Your task to perform on an android device: open app "Contacts" Image 0: 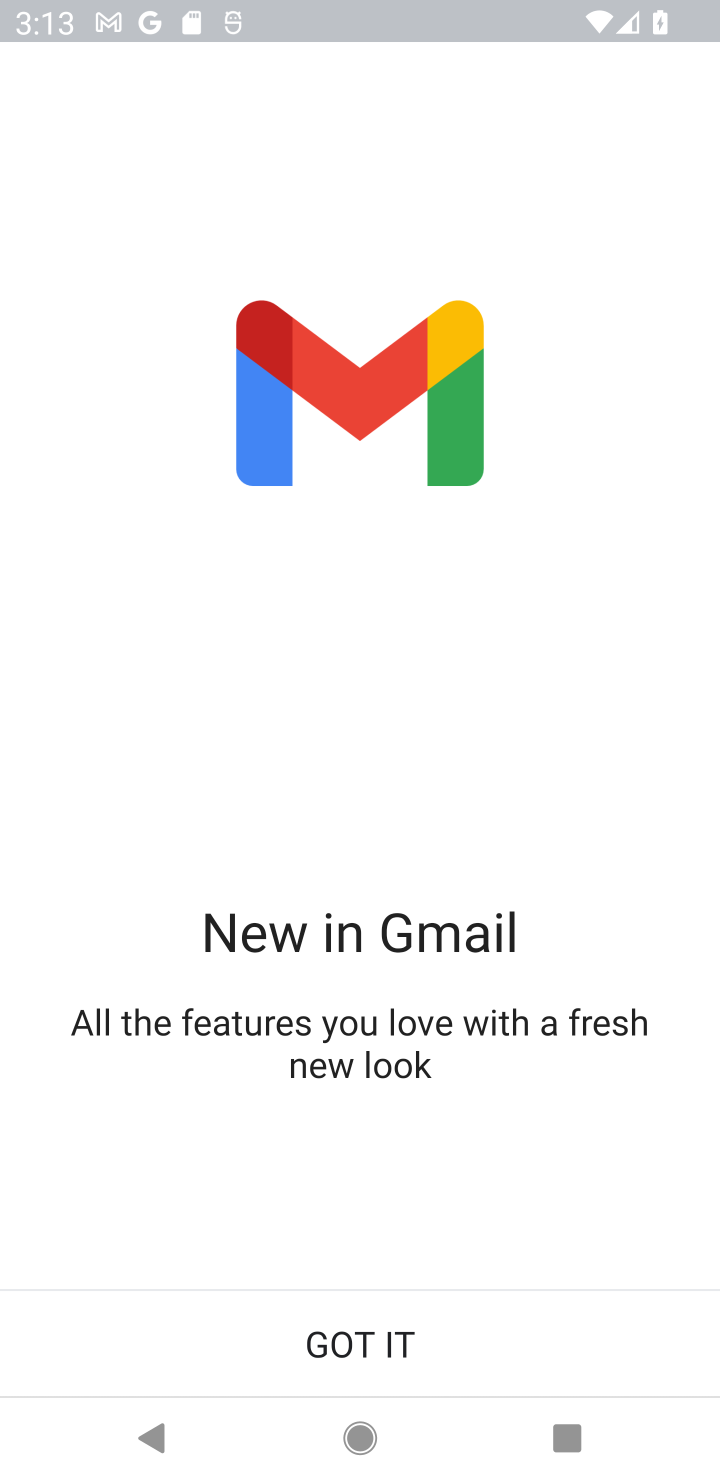
Step 0: press home button
Your task to perform on an android device: open app "Contacts" Image 1: 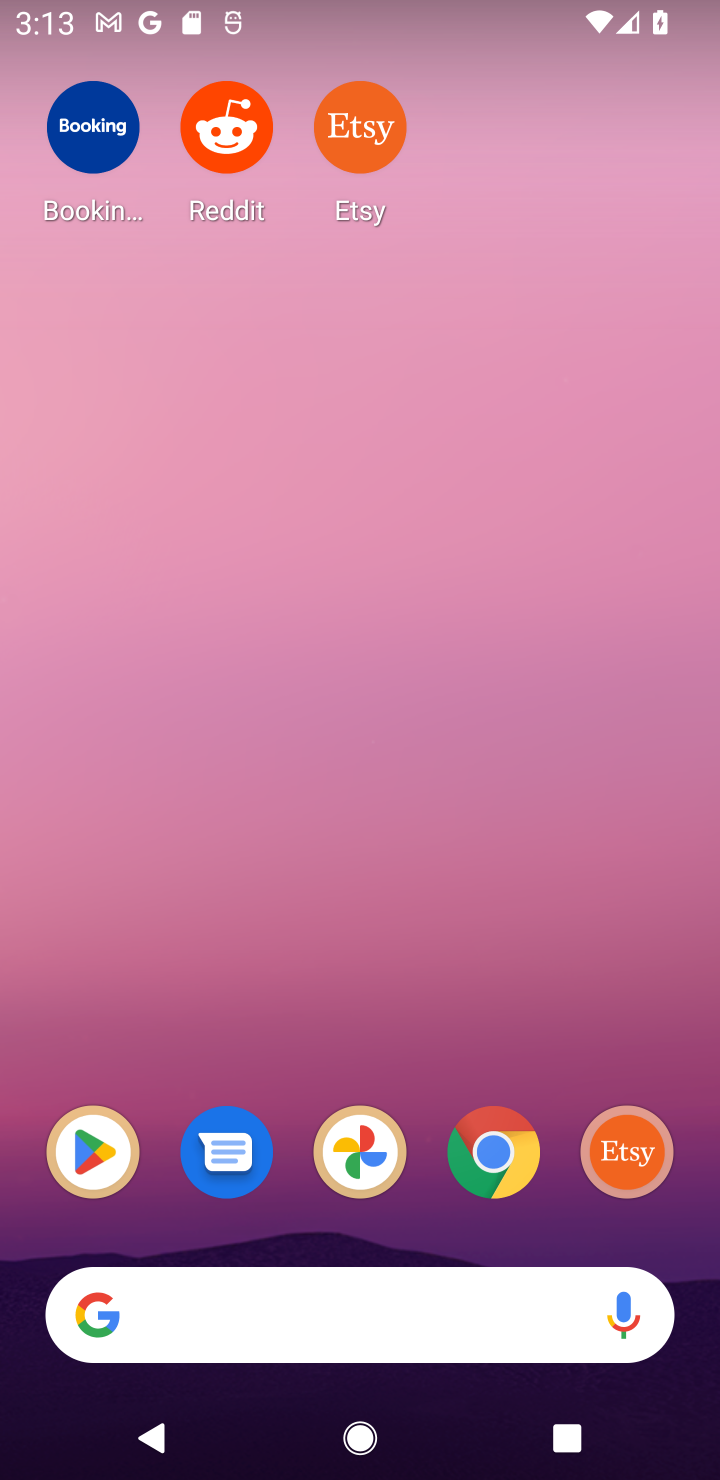
Step 1: drag from (362, 1256) to (261, 109)
Your task to perform on an android device: open app "Contacts" Image 2: 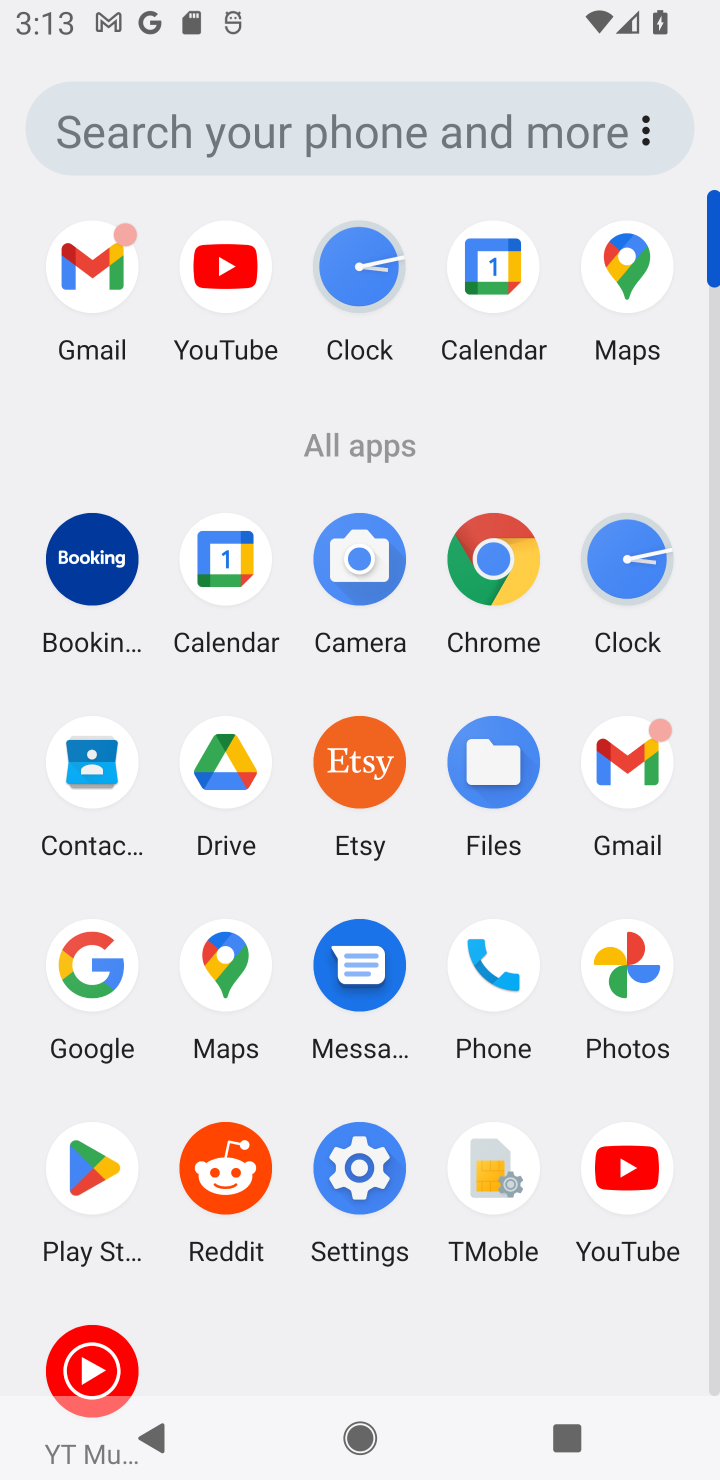
Step 2: click (481, 958)
Your task to perform on an android device: open app "Contacts" Image 3: 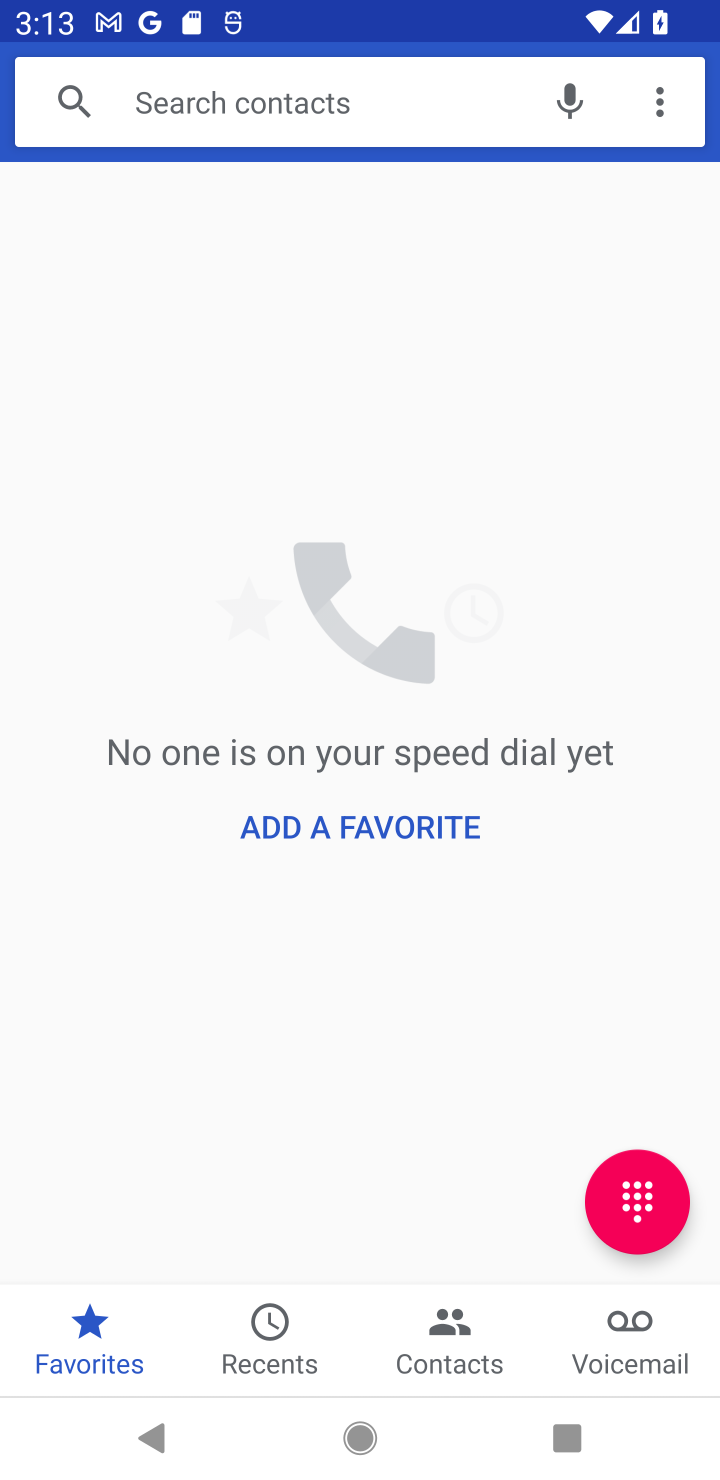
Step 3: click (451, 1326)
Your task to perform on an android device: open app "Contacts" Image 4: 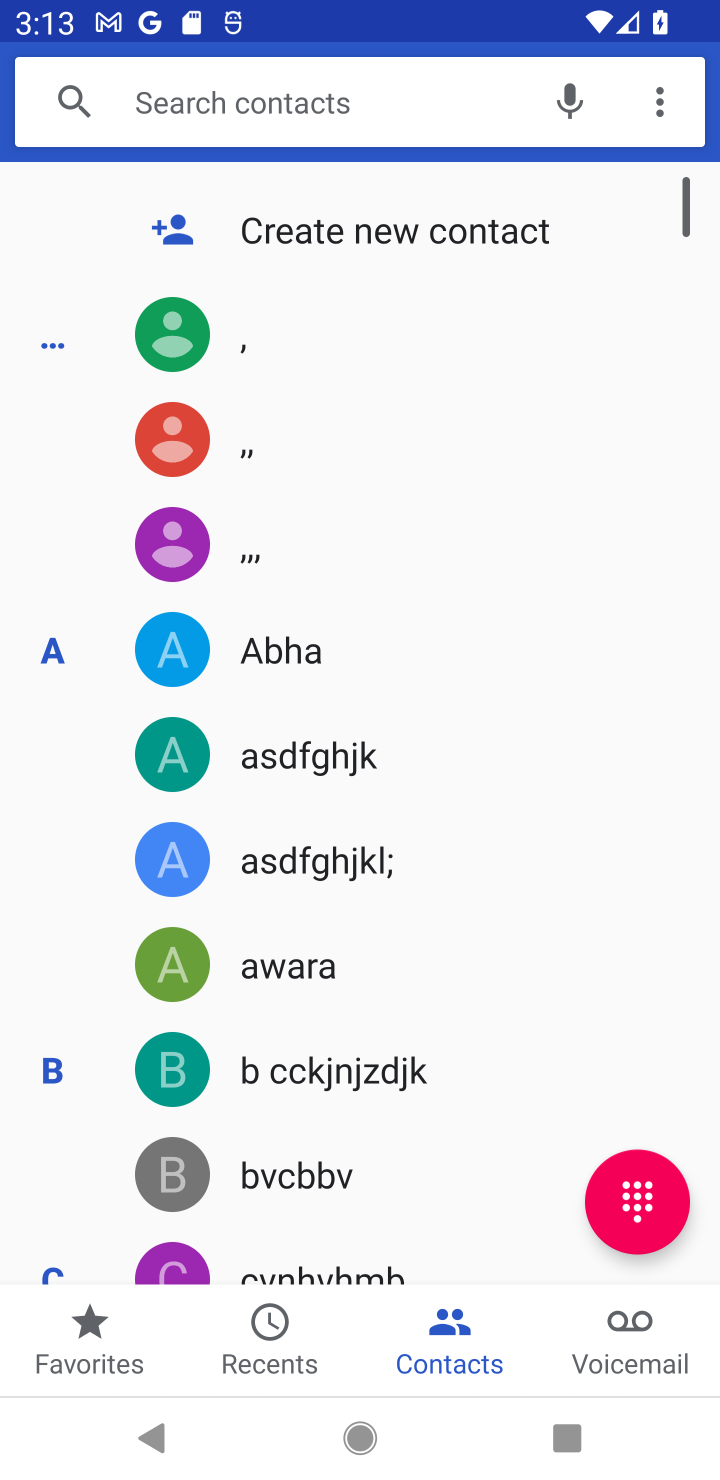
Step 4: task complete